Your task to perform on an android device: Open the map Image 0: 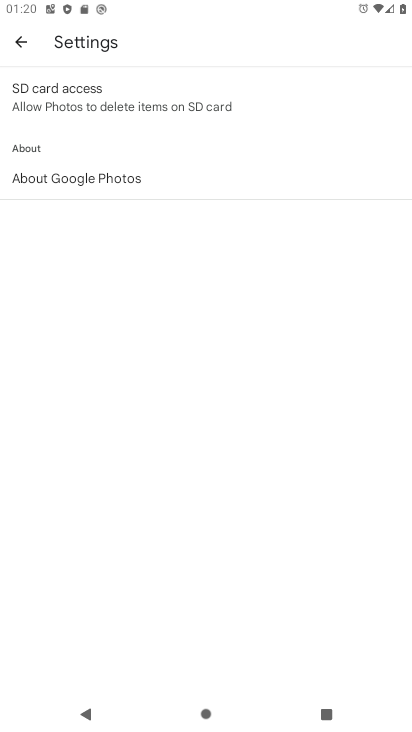
Step 0: press home button
Your task to perform on an android device: Open the map Image 1: 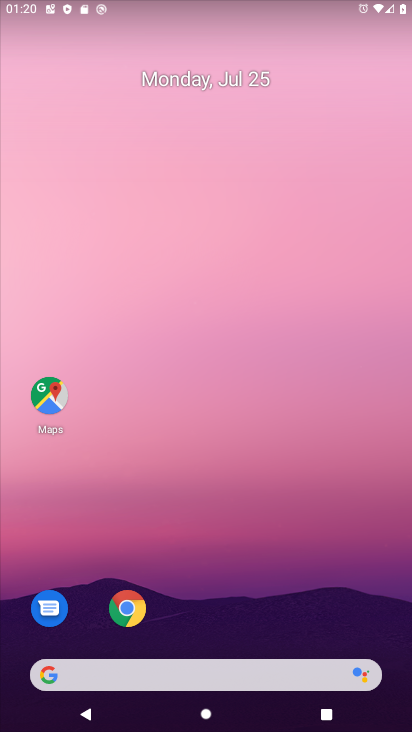
Step 1: drag from (198, 647) to (212, 1)
Your task to perform on an android device: Open the map Image 2: 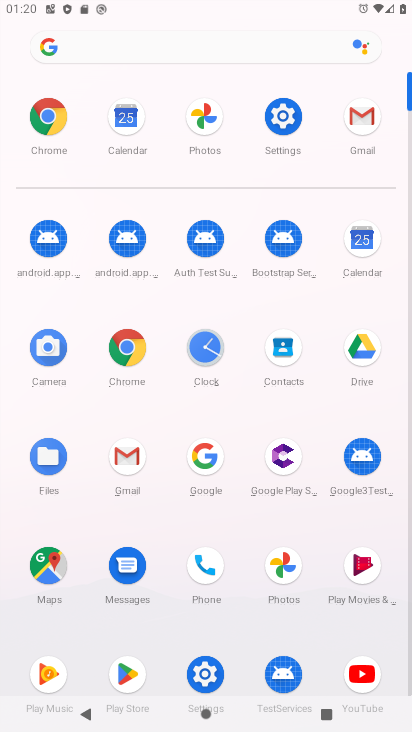
Step 2: click (46, 572)
Your task to perform on an android device: Open the map Image 3: 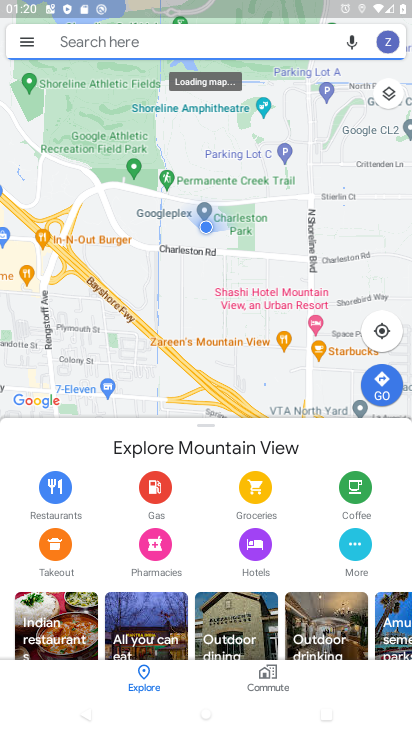
Step 3: task complete